Your task to perform on an android device: Open the Play Movies app and select the watchlist tab. Image 0: 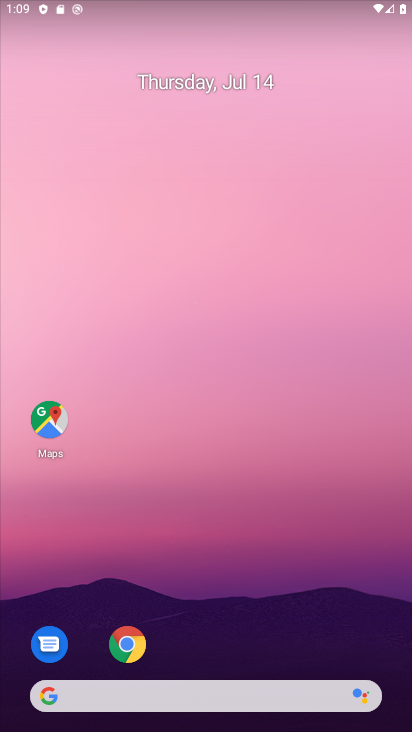
Step 0: drag from (186, 660) to (213, 226)
Your task to perform on an android device: Open the Play Movies app and select the watchlist tab. Image 1: 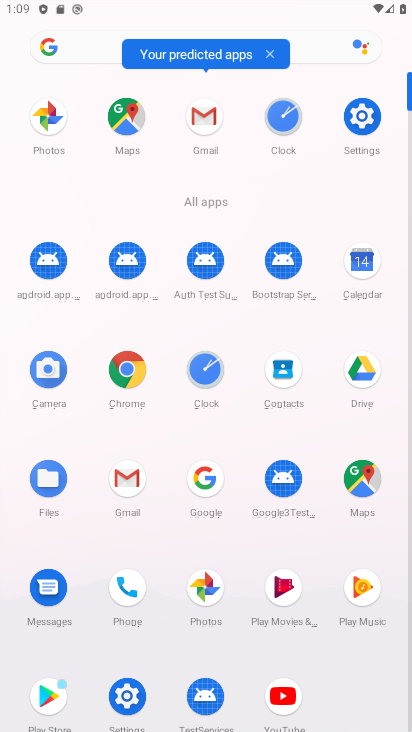
Step 1: click (278, 589)
Your task to perform on an android device: Open the Play Movies app and select the watchlist tab. Image 2: 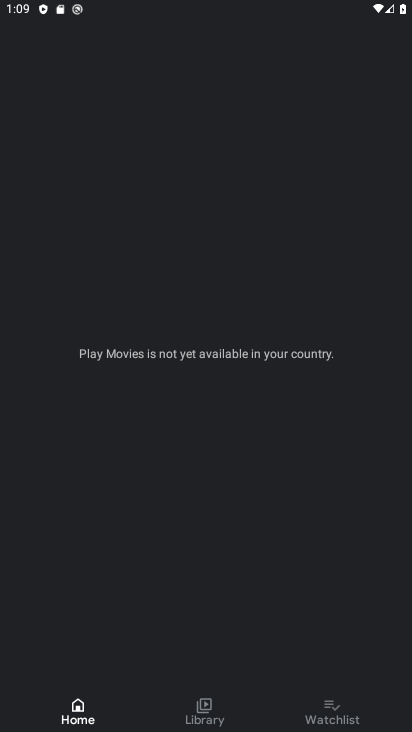
Step 2: click (360, 716)
Your task to perform on an android device: Open the Play Movies app and select the watchlist tab. Image 3: 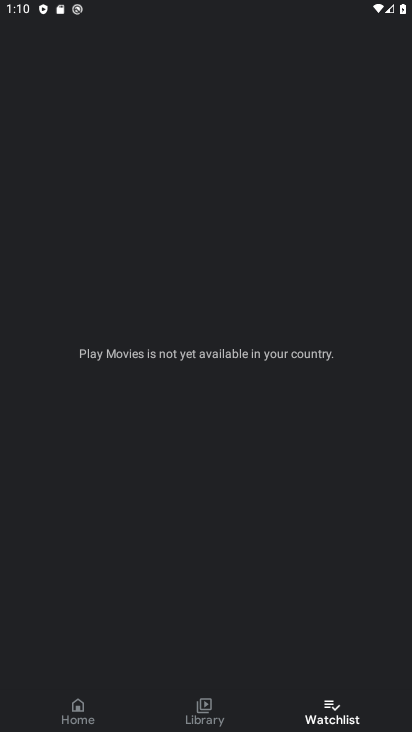
Step 3: task complete